Your task to perform on an android device: When is my next appointment? Image 0: 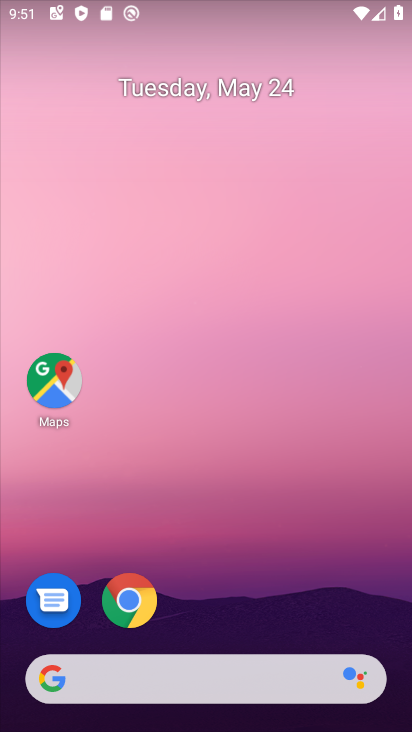
Step 0: drag from (177, 596) to (181, 63)
Your task to perform on an android device: When is my next appointment? Image 1: 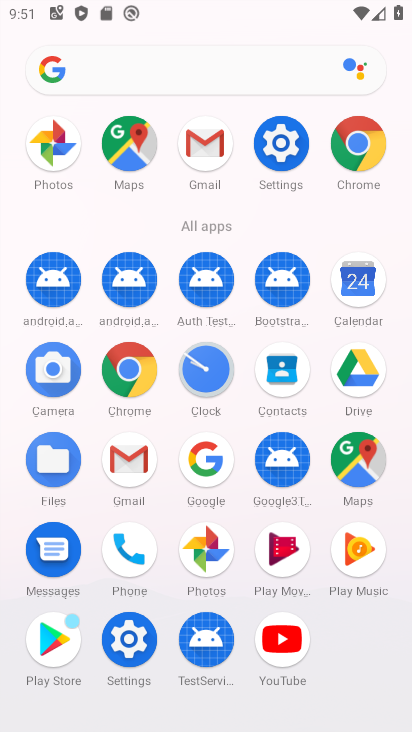
Step 1: click (362, 312)
Your task to perform on an android device: When is my next appointment? Image 2: 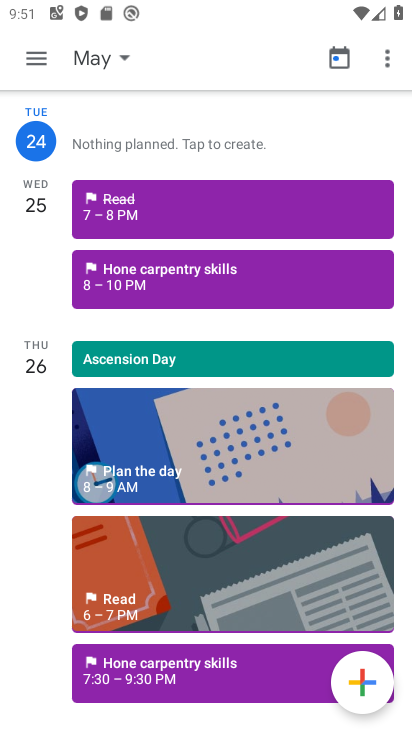
Step 2: drag from (71, 434) to (74, 330)
Your task to perform on an android device: When is my next appointment? Image 3: 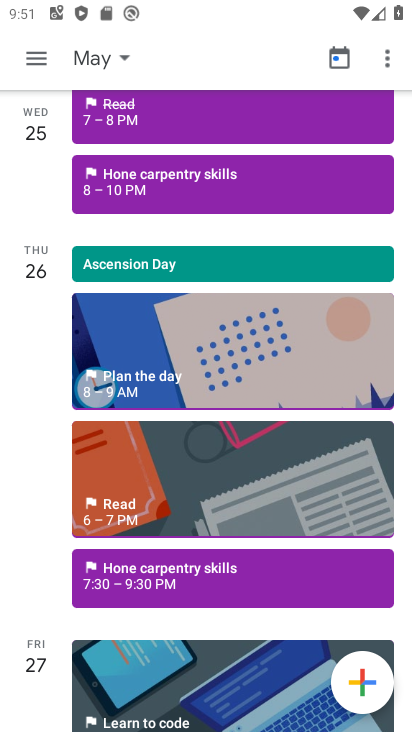
Step 3: drag from (52, 348) to (17, 135)
Your task to perform on an android device: When is my next appointment? Image 4: 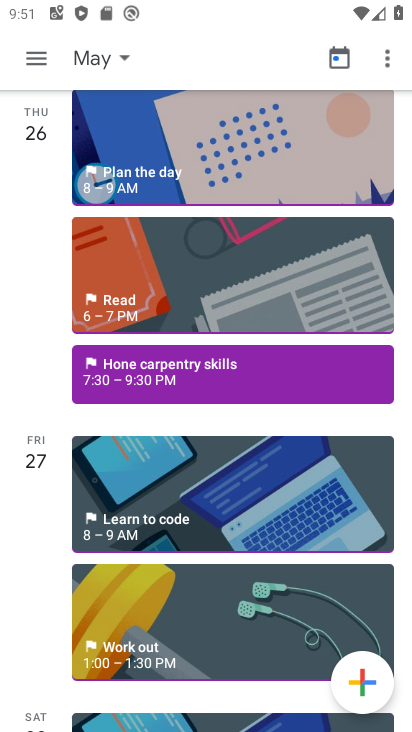
Step 4: drag from (117, 584) to (81, 262)
Your task to perform on an android device: When is my next appointment? Image 5: 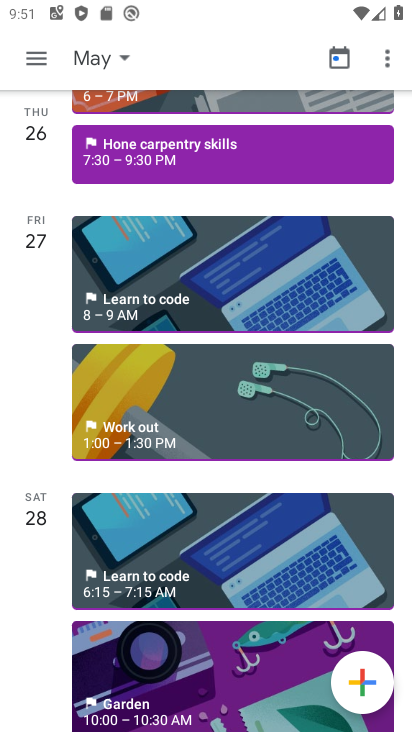
Step 5: drag from (174, 620) to (131, 154)
Your task to perform on an android device: When is my next appointment? Image 6: 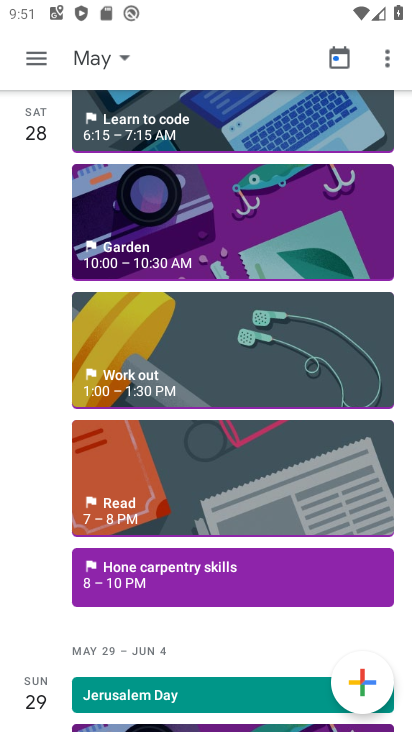
Step 6: drag from (150, 632) to (142, 322)
Your task to perform on an android device: When is my next appointment? Image 7: 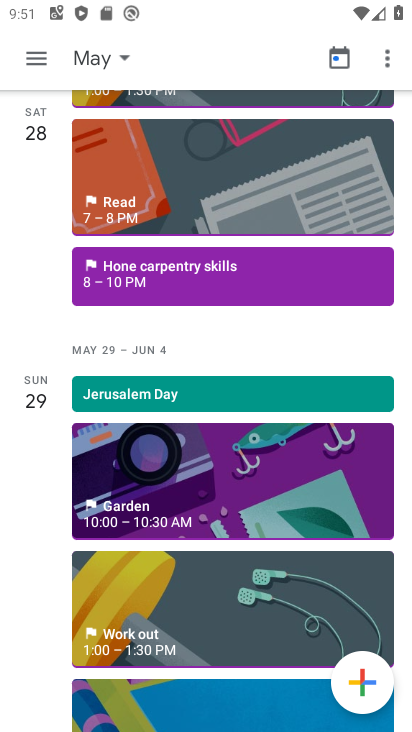
Step 7: drag from (172, 624) to (123, 212)
Your task to perform on an android device: When is my next appointment? Image 8: 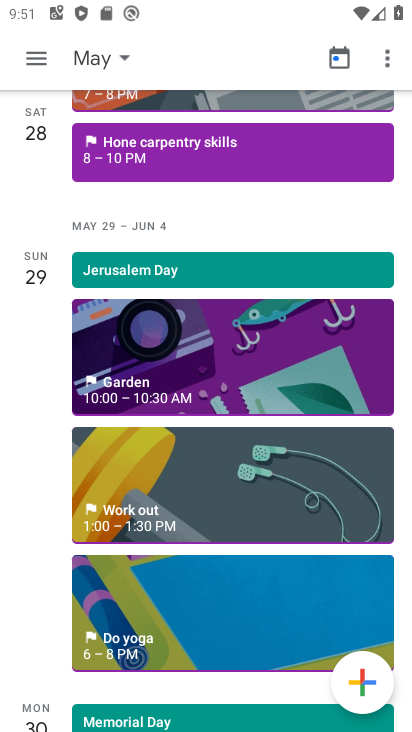
Step 8: drag from (170, 701) to (168, 354)
Your task to perform on an android device: When is my next appointment? Image 9: 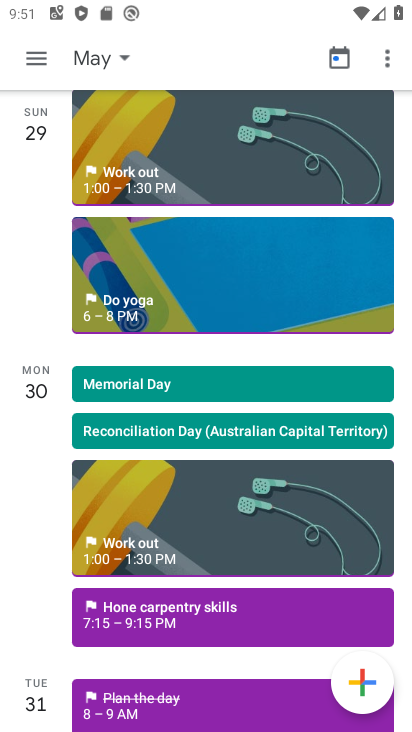
Step 9: drag from (174, 631) to (83, 260)
Your task to perform on an android device: When is my next appointment? Image 10: 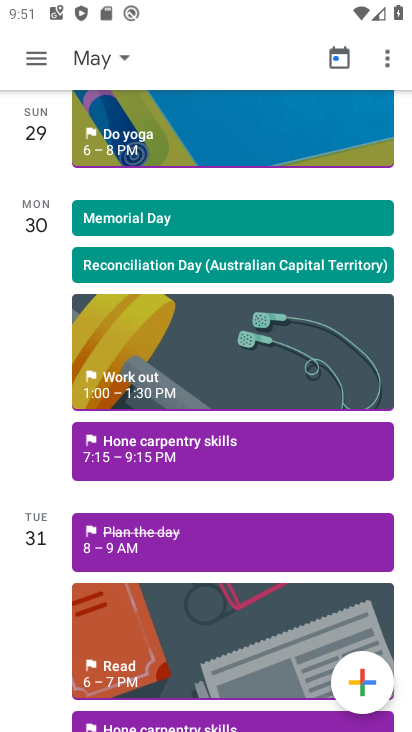
Step 10: drag from (193, 649) to (185, 383)
Your task to perform on an android device: When is my next appointment? Image 11: 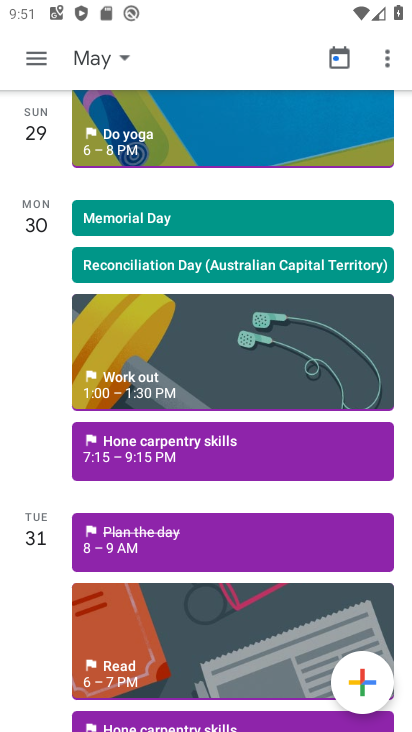
Step 11: click (180, 362)
Your task to perform on an android device: When is my next appointment? Image 12: 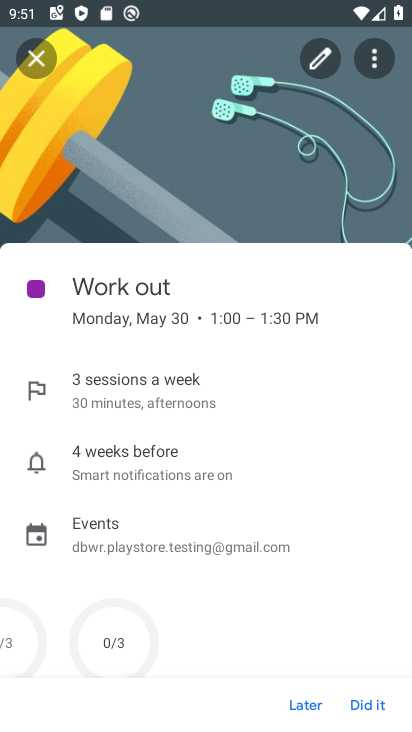
Step 12: click (46, 72)
Your task to perform on an android device: When is my next appointment? Image 13: 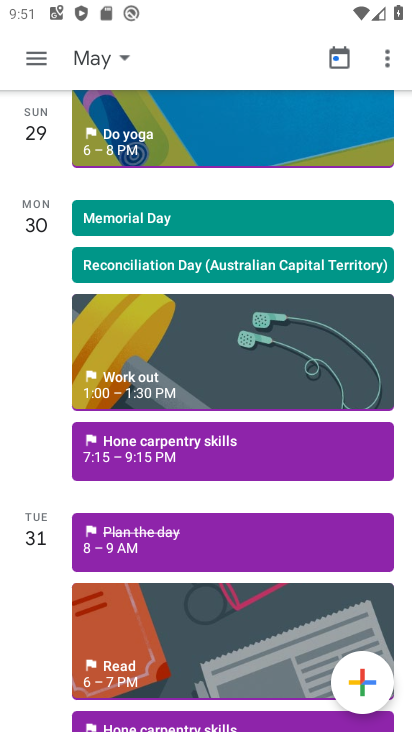
Step 13: task complete